Your task to perform on an android device: Open Youtube and go to the subscriptions tab Image 0: 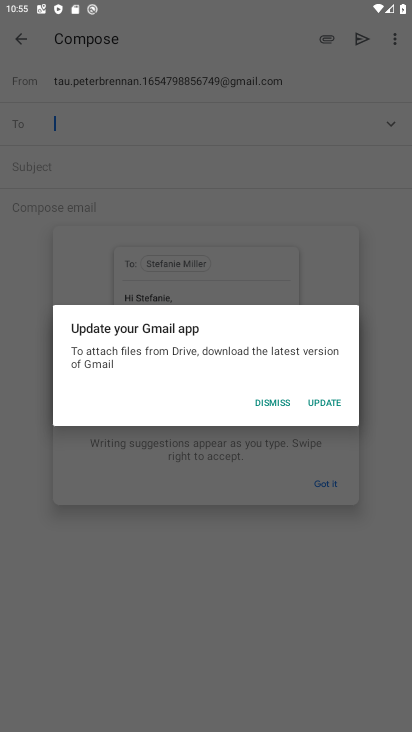
Step 0: press home button
Your task to perform on an android device: Open Youtube and go to the subscriptions tab Image 1: 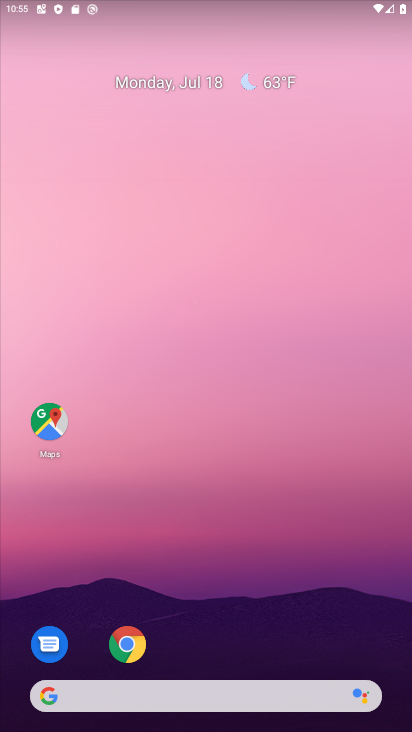
Step 1: drag from (240, 646) to (257, 109)
Your task to perform on an android device: Open Youtube and go to the subscriptions tab Image 2: 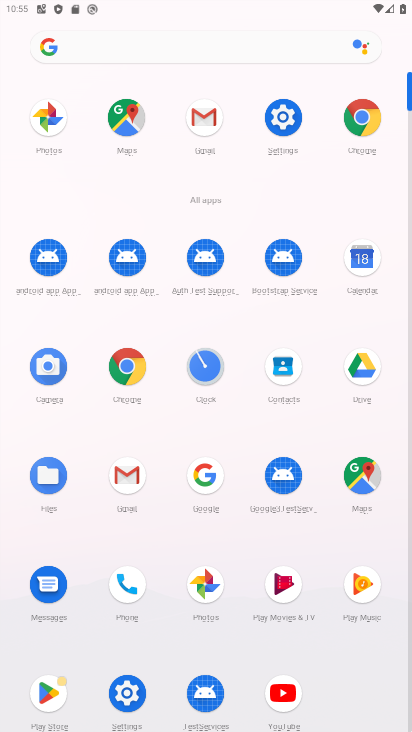
Step 2: click (282, 698)
Your task to perform on an android device: Open Youtube and go to the subscriptions tab Image 3: 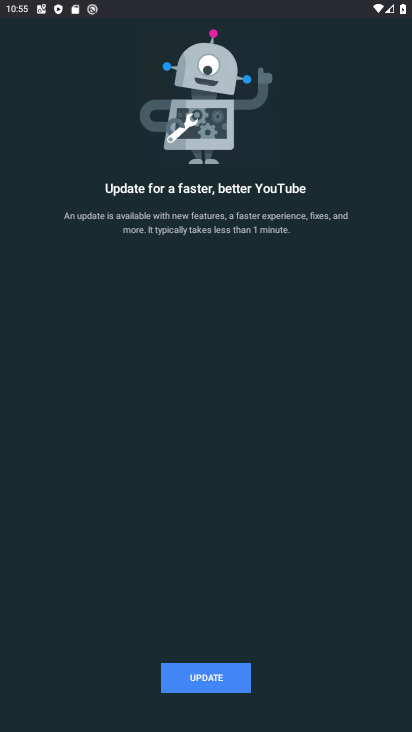
Step 3: click (222, 689)
Your task to perform on an android device: Open Youtube and go to the subscriptions tab Image 4: 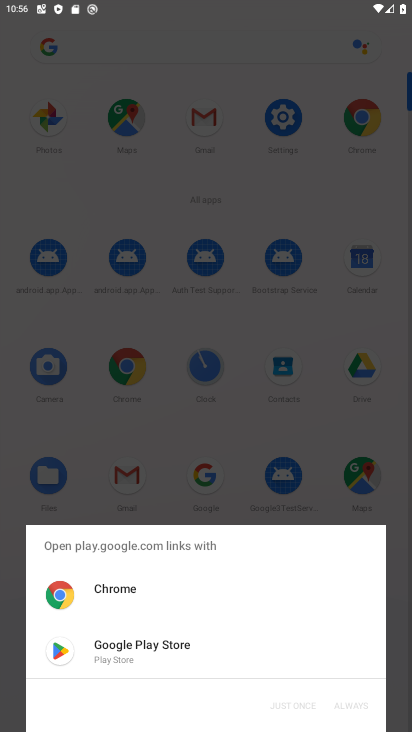
Step 4: click (155, 648)
Your task to perform on an android device: Open Youtube and go to the subscriptions tab Image 5: 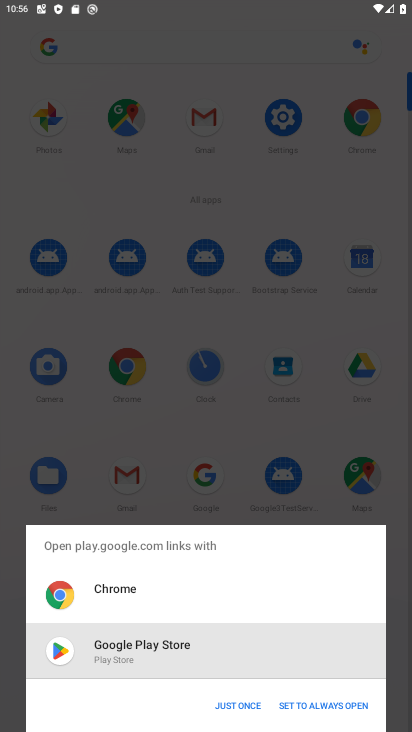
Step 5: click (224, 699)
Your task to perform on an android device: Open Youtube and go to the subscriptions tab Image 6: 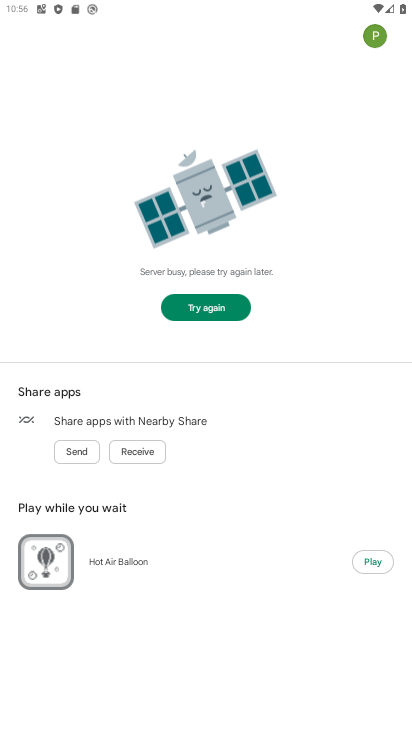
Step 6: click (213, 309)
Your task to perform on an android device: Open Youtube and go to the subscriptions tab Image 7: 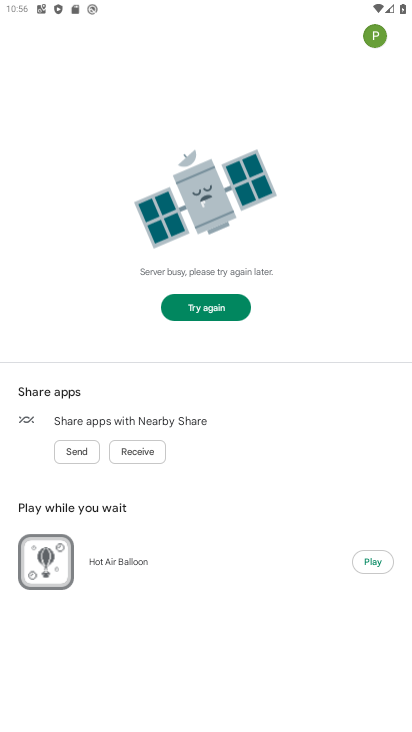
Step 7: task complete